Your task to perform on an android device: What's on my calendar tomorrow? Image 0: 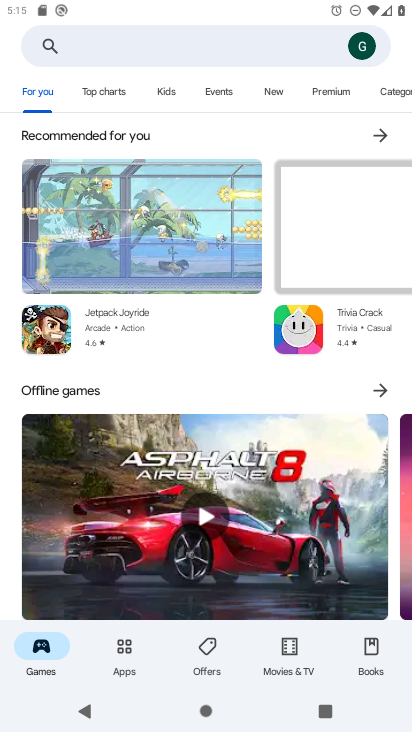
Step 0: press home button
Your task to perform on an android device: What's on my calendar tomorrow? Image 1: 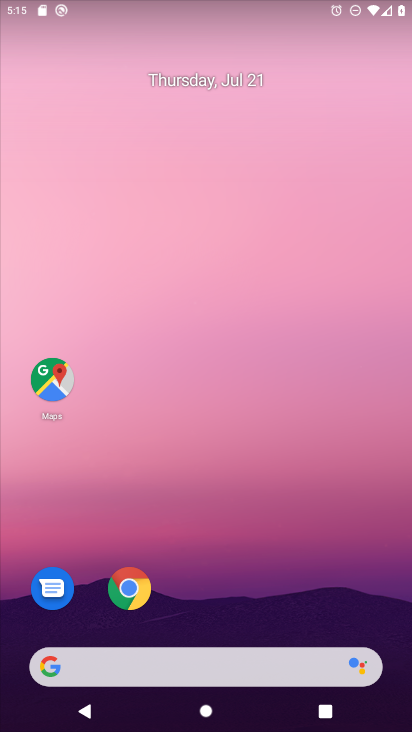
Step 1: drag from (370, 614) to (231, 160)
Your task to perform on an android device: What's on my calendar tomorrow? Image 2: 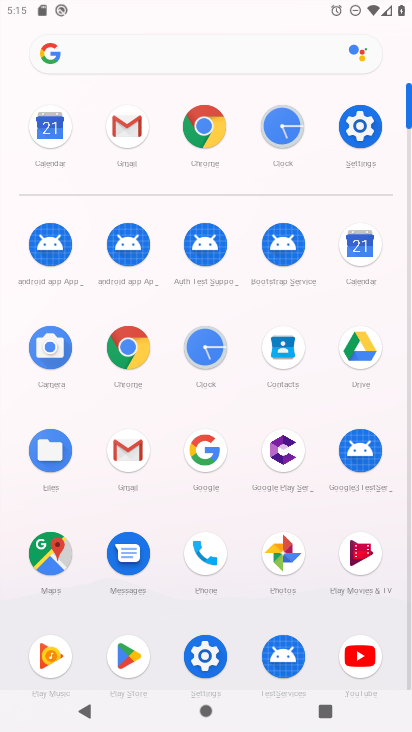
Step 2: click (373, 244)
Your task to perform on an android device: What's on my calendar tomorrow? Image 3: 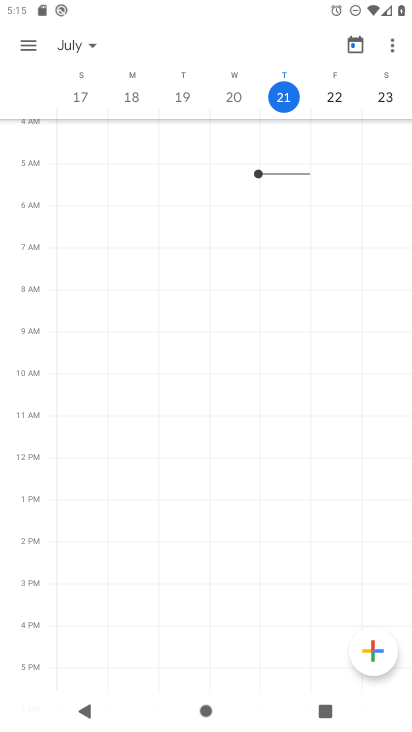
Step 3: click (22, 40)
Your task to perform on an android device: What's on my calendar tomorrow? Image 4: 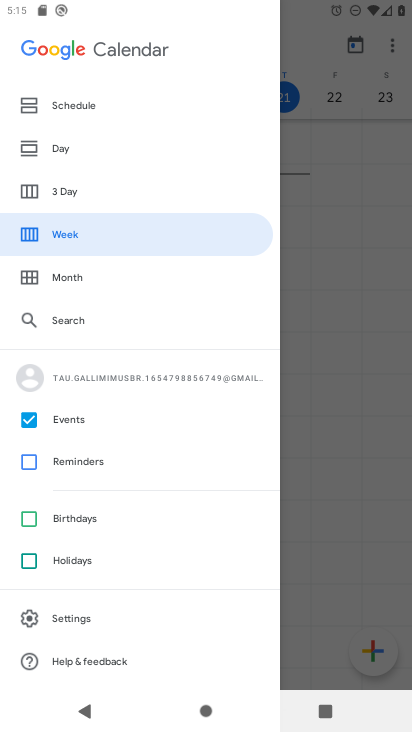
Step 4: click (78, 145)
Your task to perform on an android device: What's on my calendar tomorrow? Image 5: 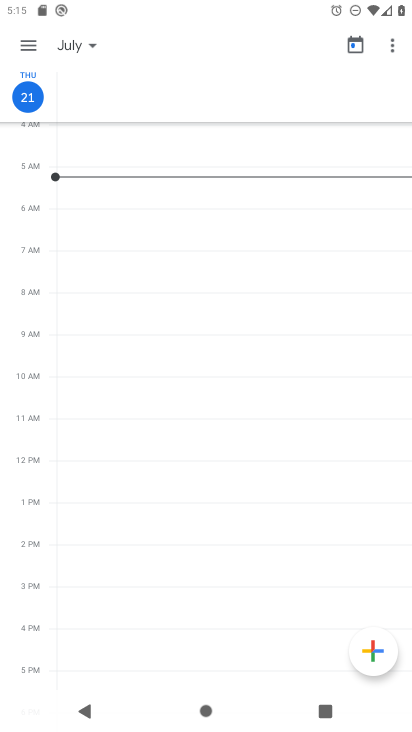
Step 5: task complete